Your task to perform on an android device: turn off airplane mode Image 0: 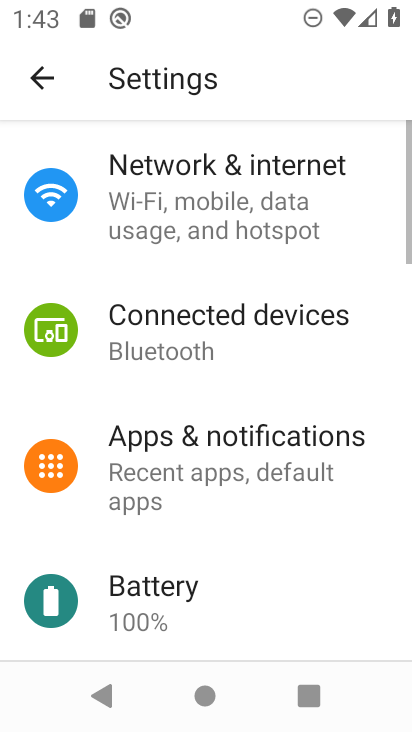
Step 0: press home button
Your task to perform on an android device: turn off airplane mode Image 1: 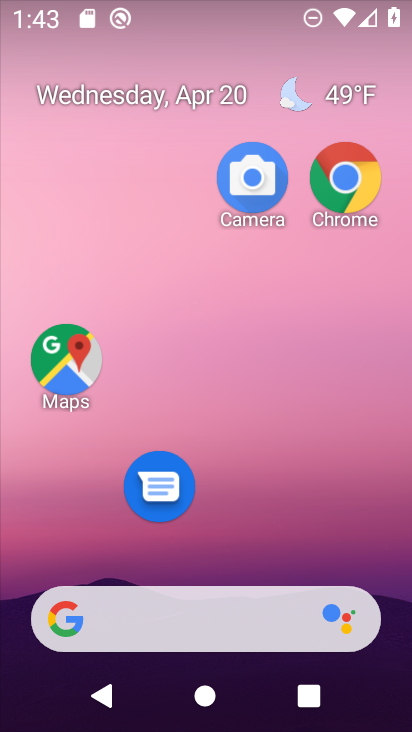
Step 1: drag from (250, 603) to (242, 116)
Your task to perform on an android device: turn off airplane mode Image 2: 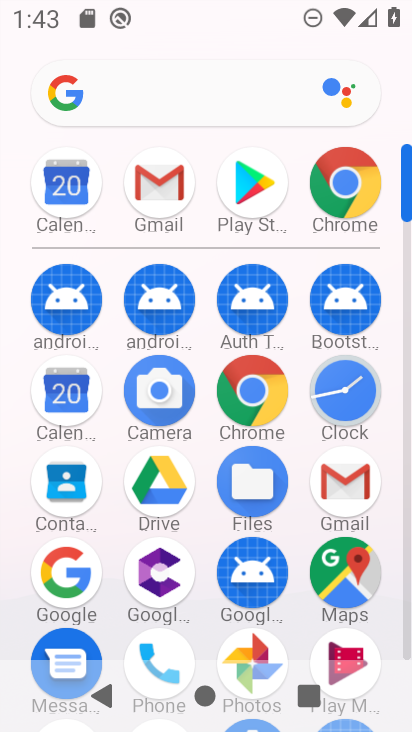
Step 2: drag from (206, 508) to (241, 226)
Your task to perform on an android device: turn off airplane mode Image 3: 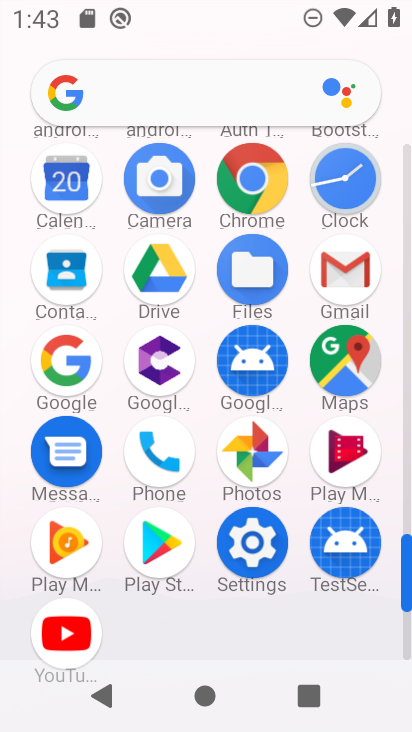
Step 3: click (247, 529)
Your task to perform on an android device: turn off airplane mode Image 4: 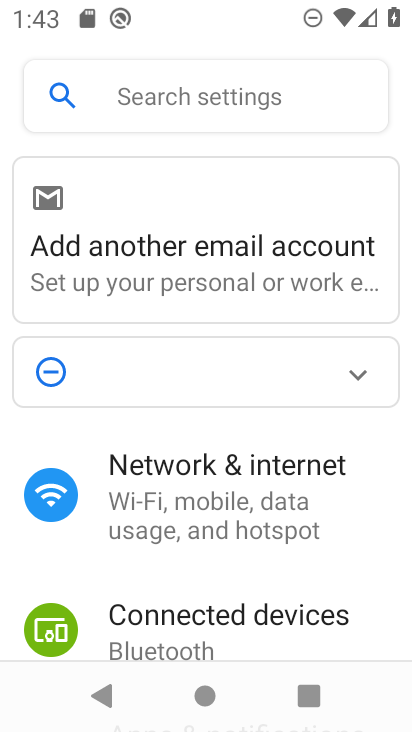
Step 4: drag from (198, 499) to (183, 400)
Your task to perform on an android device: turn off airplane mode Image 5: 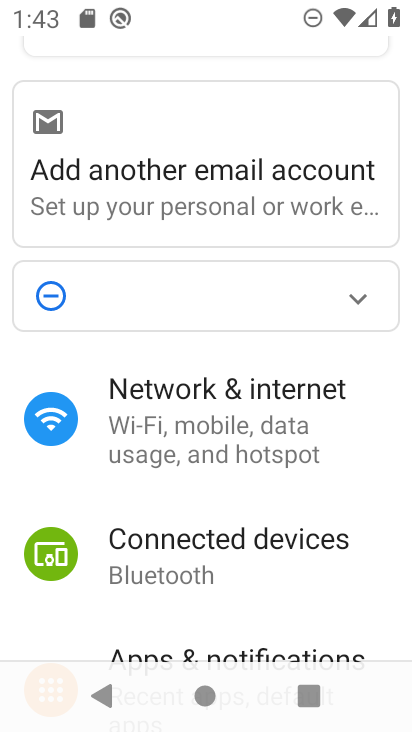
Step 5: click (188, 426)
Your task to perform on an android device: turn off airplane mode Image 6: 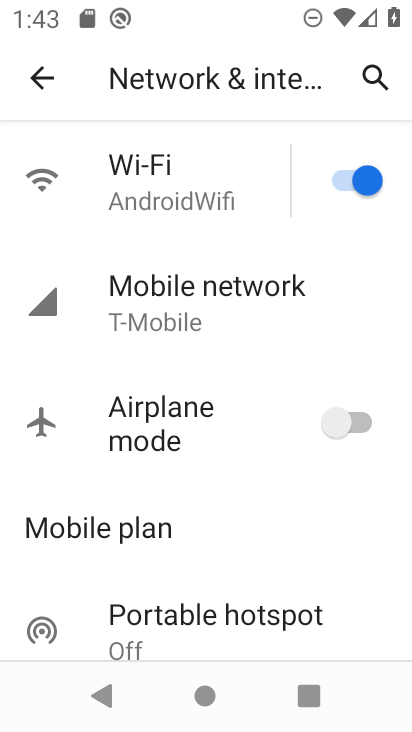
Step 6: click (203, 434)
Your task to perform on an android device: turn off airplane mode Image 7: 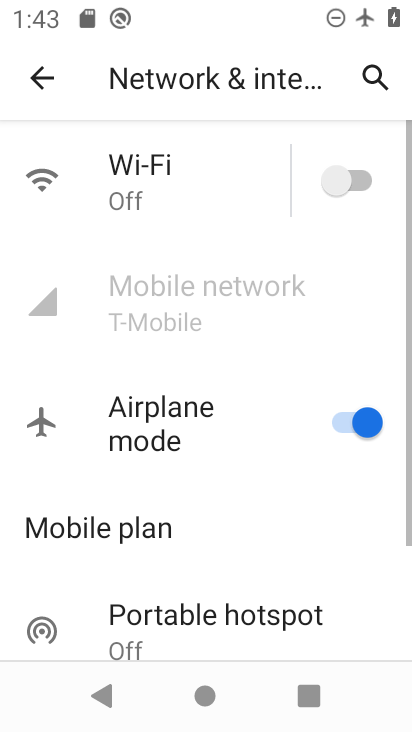
Step 7: click (203, 434)
Your task to perform on an android device: turn off airplane mode Image 8: 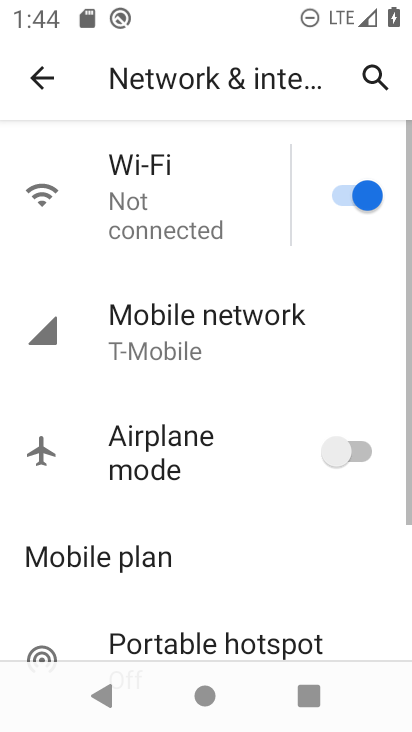
Step 8: task complete